Your task to perform on an android device: turn off smart reply in the gmail app Image 0: 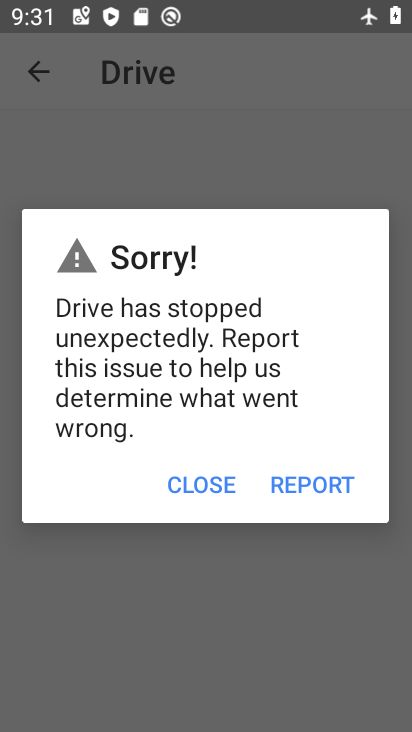
Step 0: press home button
Your task to perform on an android device: turn off smart reply in the gmail app Image 1: 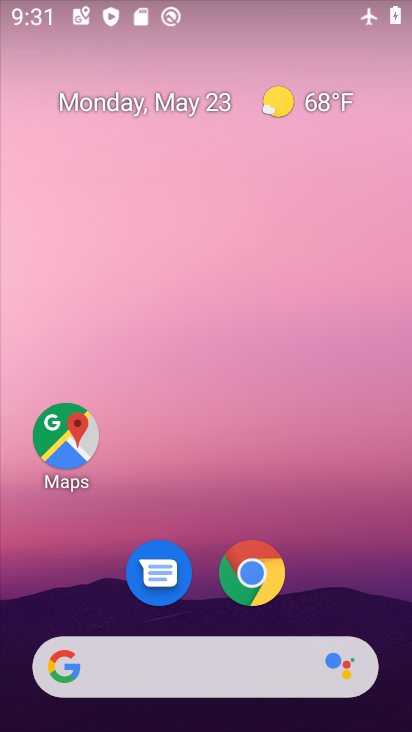
Step 1: drag from (229, 645) to (356, 75)
Your task to perform on an android device: turn off smart reply in the gmail app Image 2: 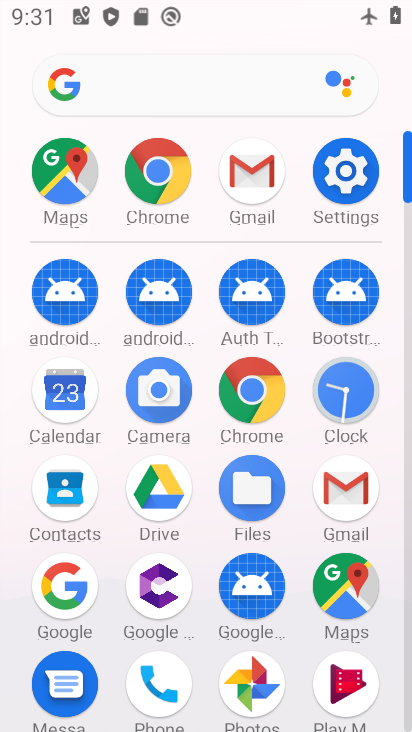
Step 2: click (356, 511)
Your task to perform on an android device: turn off smart reply in the gmail app Image 3: 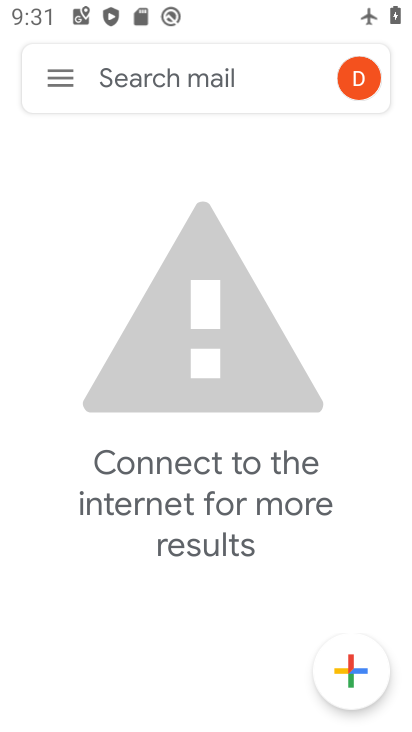
Step 3: click (63, 79)
Your task to perform on an android device: turn off smart reply in the gmail app Image 4: 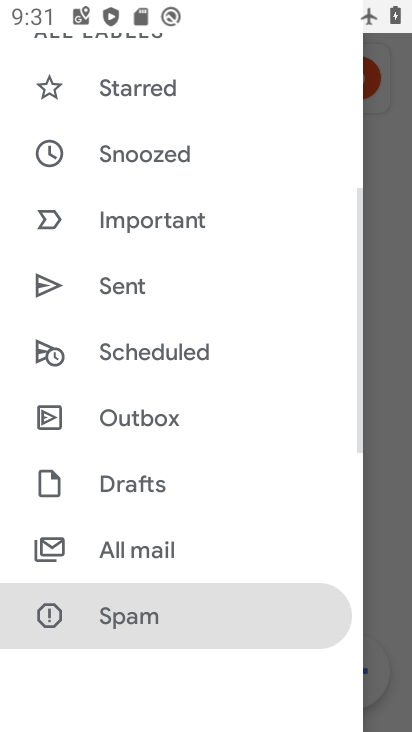
Step 4: drag from (138, 595) to (258, 11)
Your task to perform on an android device: turn off smart reply in the gmail app Image 5: 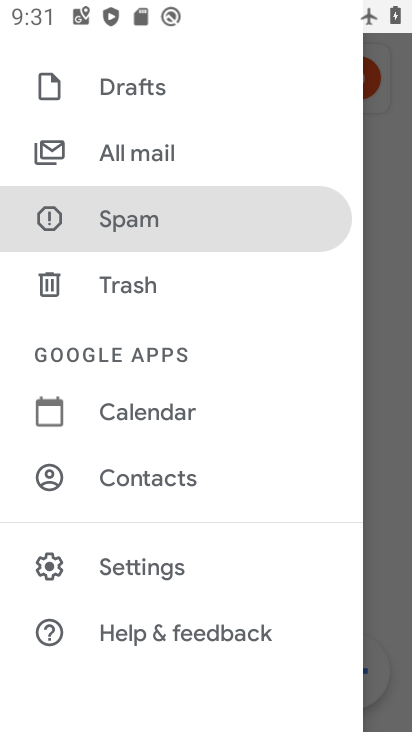
Step 5: click (173, 557)
Your task to perform on an android device: turn off smart reply in the gmail app Image 6: 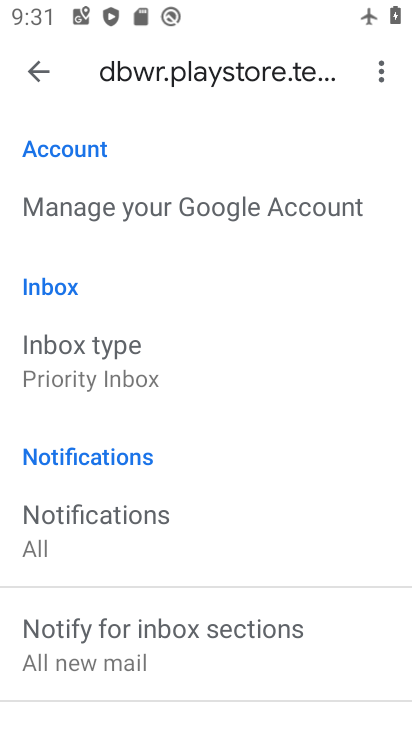
Step 6: drag from (141, 568) to (171, 151)
Your task to perform on an android device: turn off smart reply in the gmail app Image 7: 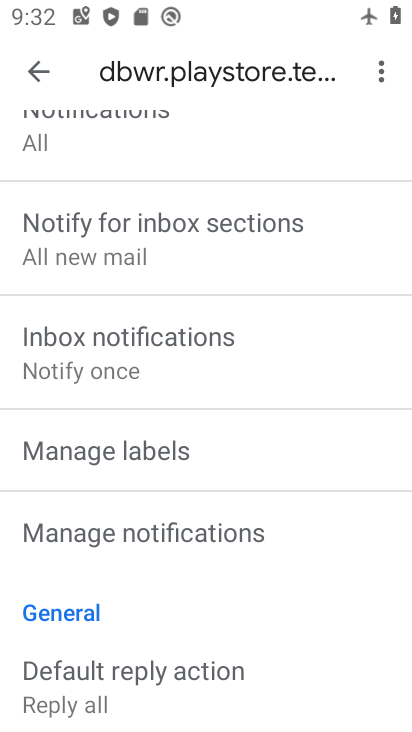
Step 7: drag from (238, 601) to (304, 139)
Your task to perform on an android device: turn off smart reply in the gmail app Image 8: 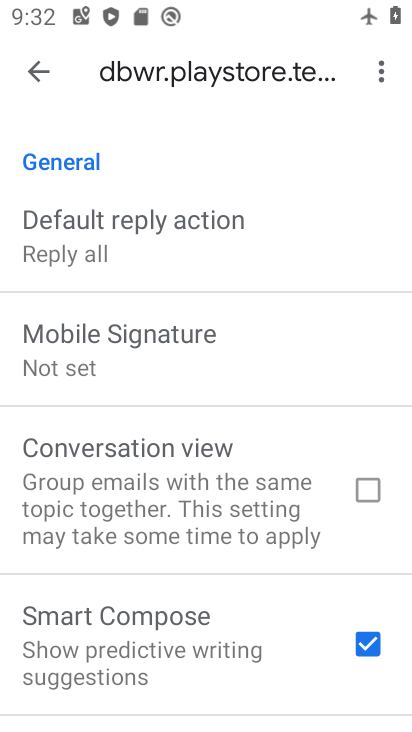
Step 8: drag from (296, 604) to (332, 265)
Your task to perform on an android device: turn off smart reply in the gmail app Image 9: 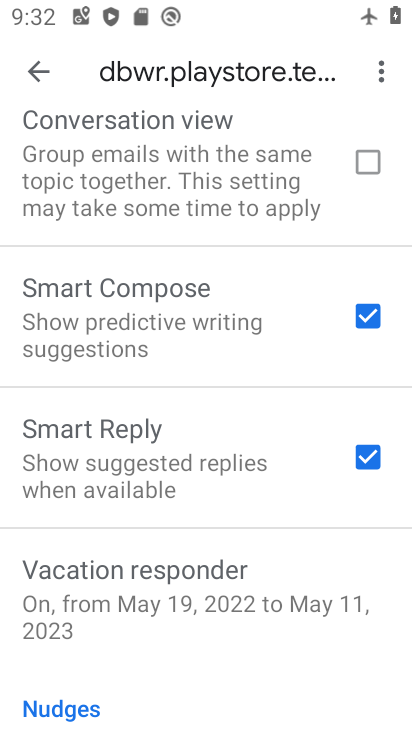
Step 9: click (373, 457)
Your task to perform on an android device: turn off smart reply in the gmail app Image 10: 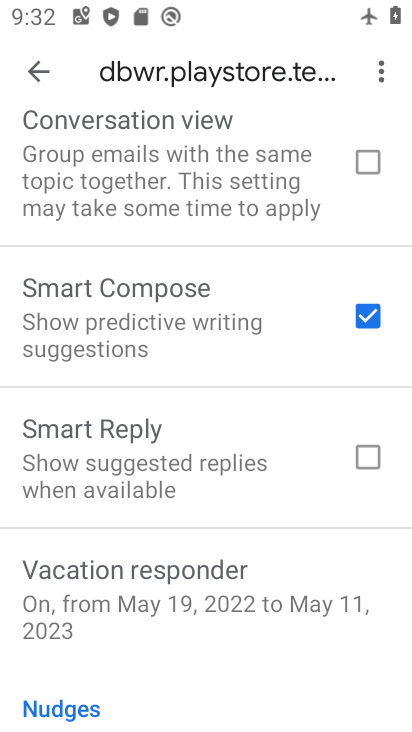
Step 10: task complete